Your task to perform on an android device: turn off data saver in the chrome app Image 0: 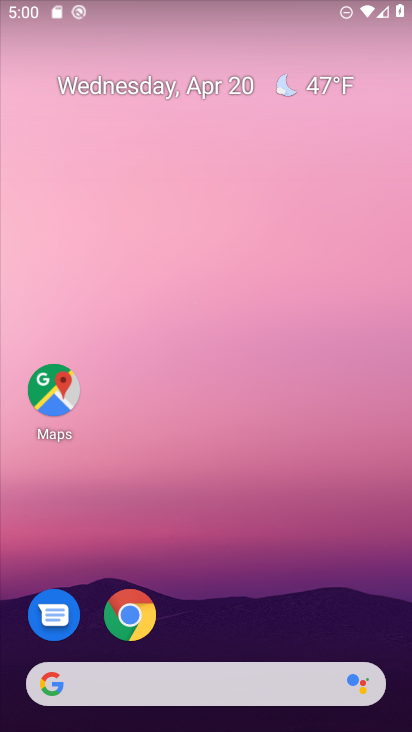
Step 0: click (140, 614)
Your task to perform on an android device: turn off data saver in the chrome app Image 1: 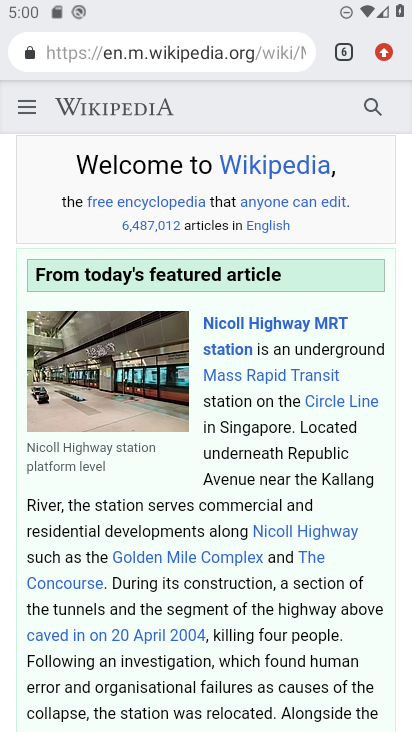
Step 1: click (381, 53)
Your task to perform on an android device: turn off data saver in the chrome app Image 2: 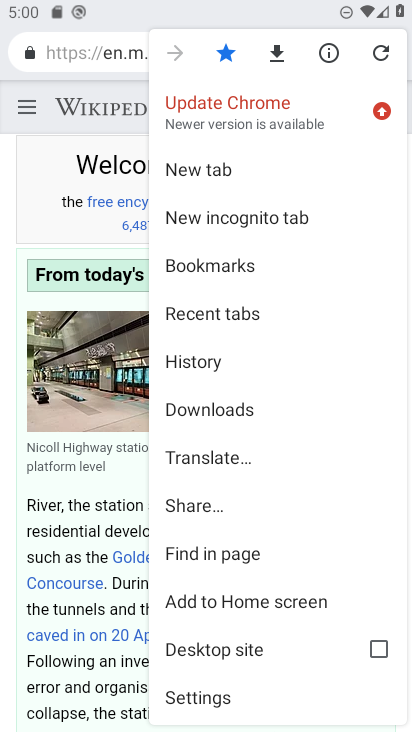
Step 2: click (214, 692)
Your task to perform on an android device: turn off data saver in the chrome app Image 3: 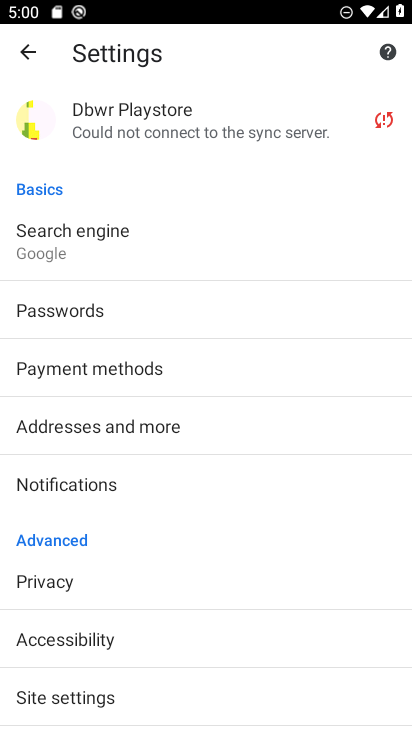
Step 3: drag from (259, 615) to (259, 237)
Your task to perform on an android device: turn off data saver in the chrome app Image 4: 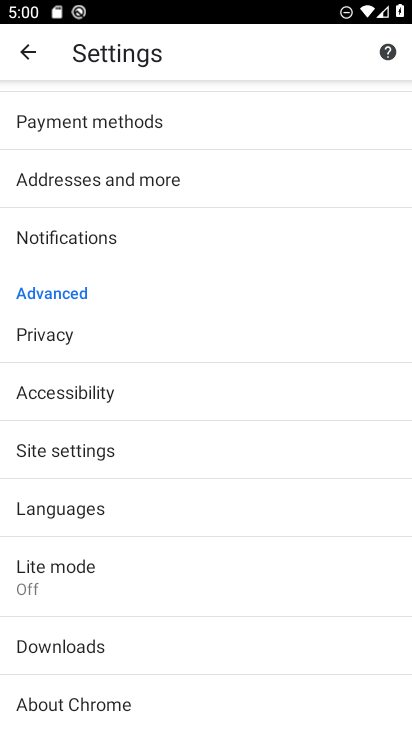
Step 4: click (113, 574)
Your task to perform on an android device: turn off data saver in the chrome app Image 5: 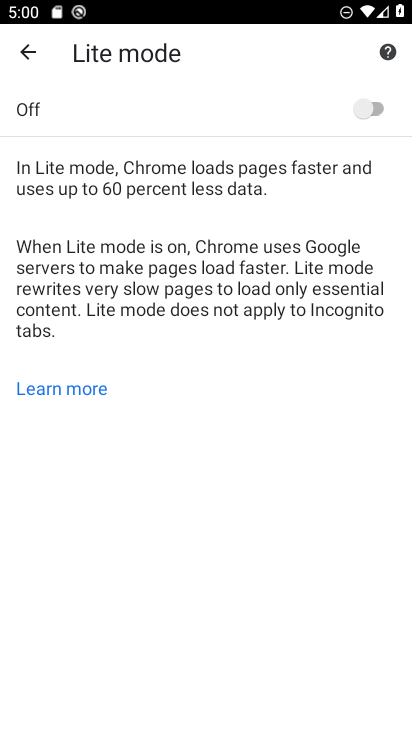
Step 5: task complete